Your task to perform on an android device: turn off notifications settings in the gmail app Image 0: 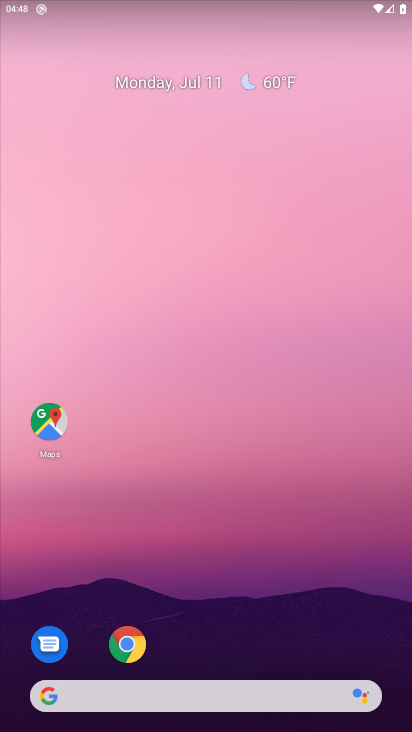
Step 0: drag from (207, 646) to (156, 132)
Your task to perform on an android device: turn off notifications settings in the gmail app Image 1: 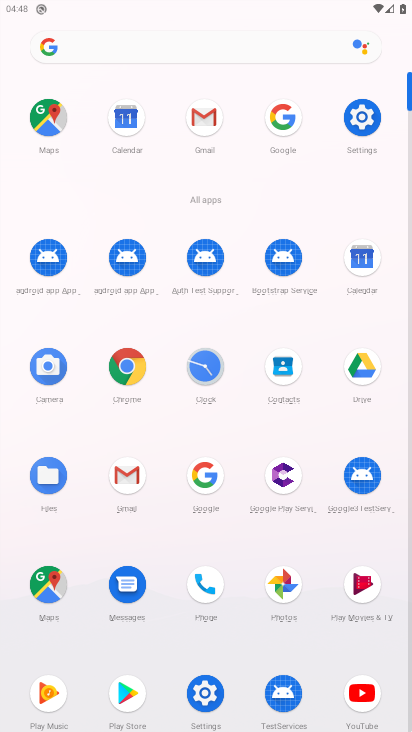
Step 1: click (197, 123)
Your task to perform on an android device: turn off notifications settings in the gmail app Image 2: 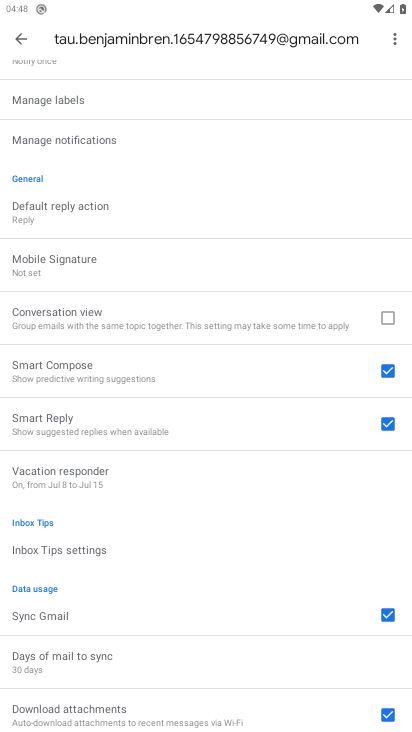
Step 2: click (85, 141)
Your task to perform on an android device: turn off notifications settings in the gmail app Image 3: 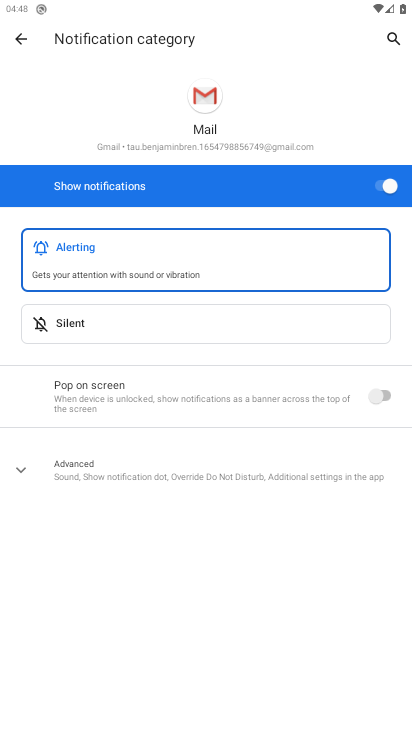
Step 3: click (390, 192)
Your task to perform on an android device: turn off notifications settings in the gmail app Image 4: 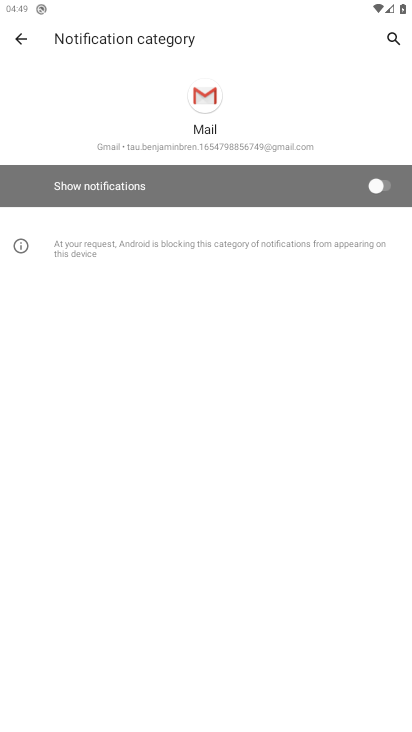
Step 4: task complete